Your task to perform on an android device: Go to Google maps Image 0: 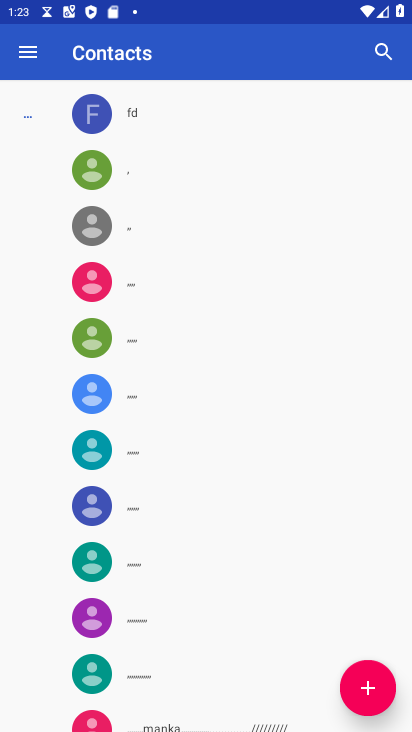
Step 0: press home button
Your task to perform on an android device: Go to Google maps Image 1: 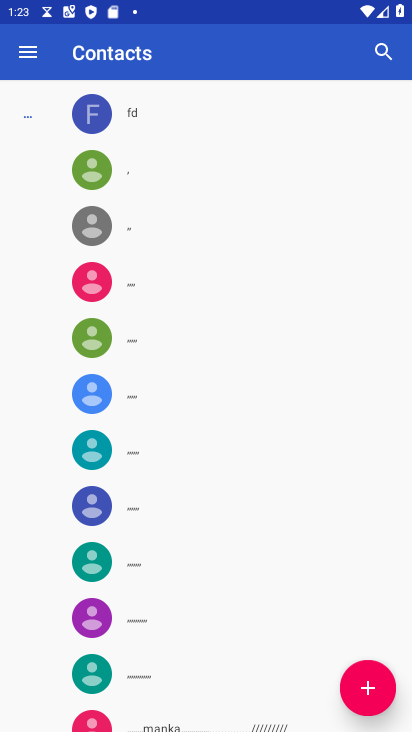
Step 1: press home button
Your task to perform on an android device: Go to Google maps Image 2: 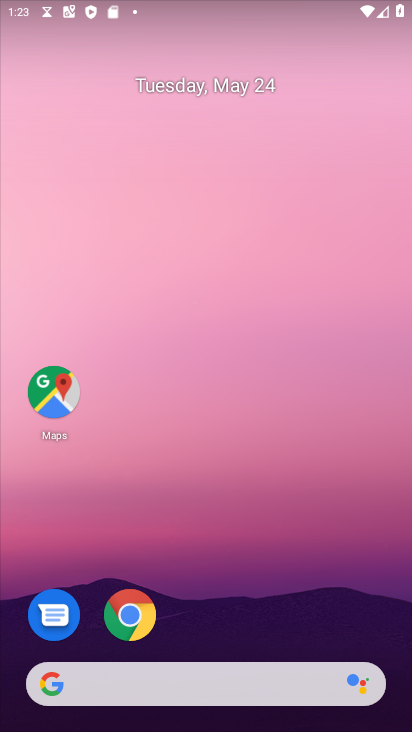
Step 2: click (56, 387)
Your task to perform on an android device: Go to Google maps Image 3: 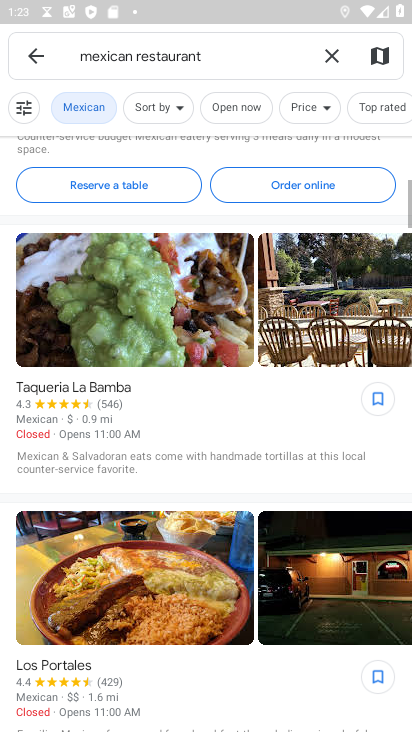
Step 3: click (327, 54)
Your task to perform on an android device: Go to Google maps Image 4: 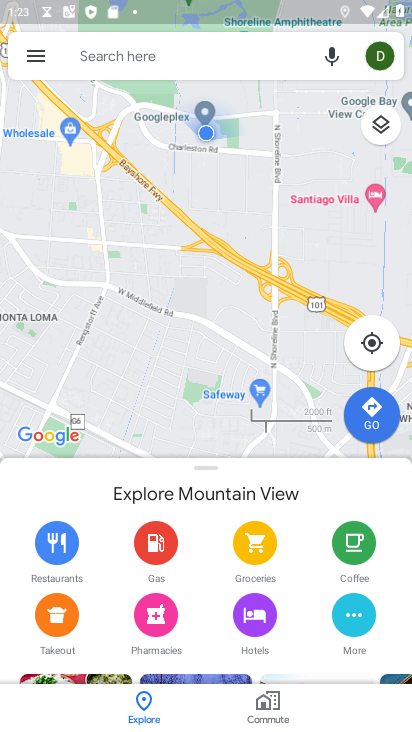
Step 4: task complete